Your task to perform on an android device: Open Chrome and go to settings Image 0: 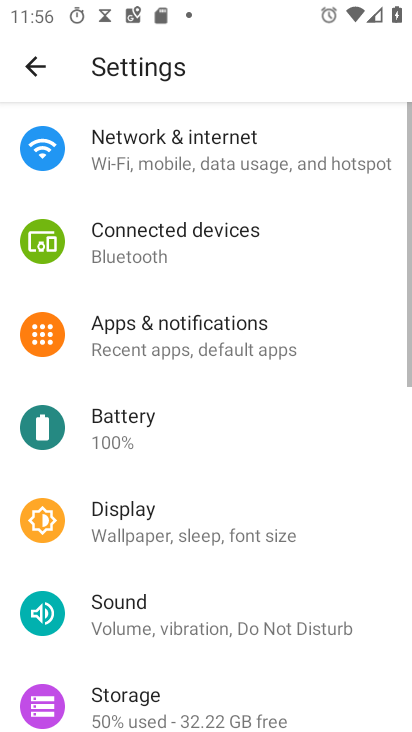
Step 0: press home button
Your task to perform on an android device: Open Chrome and go to settings Image 1: 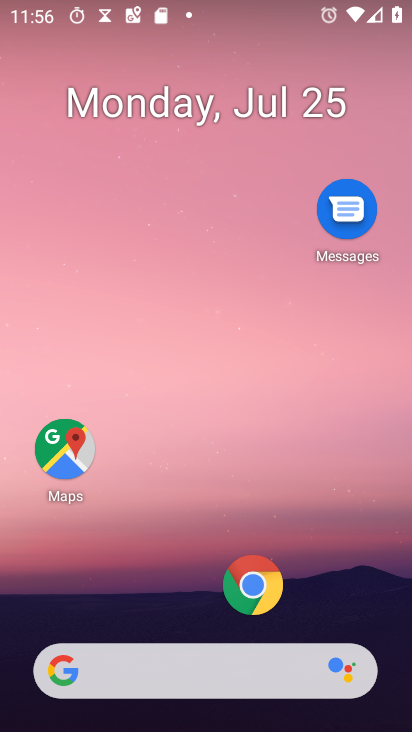
Step 1: click (250, 592)
Your task to perform on an android device: Open Chrome and go to settings Image 2: 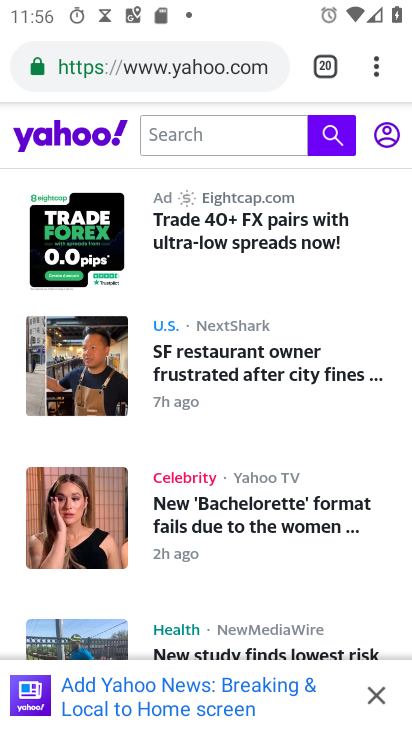
Step 2: task complete